Your task to perform on an android device: uninstall "Adobe Acrobat Reader" Image 0: 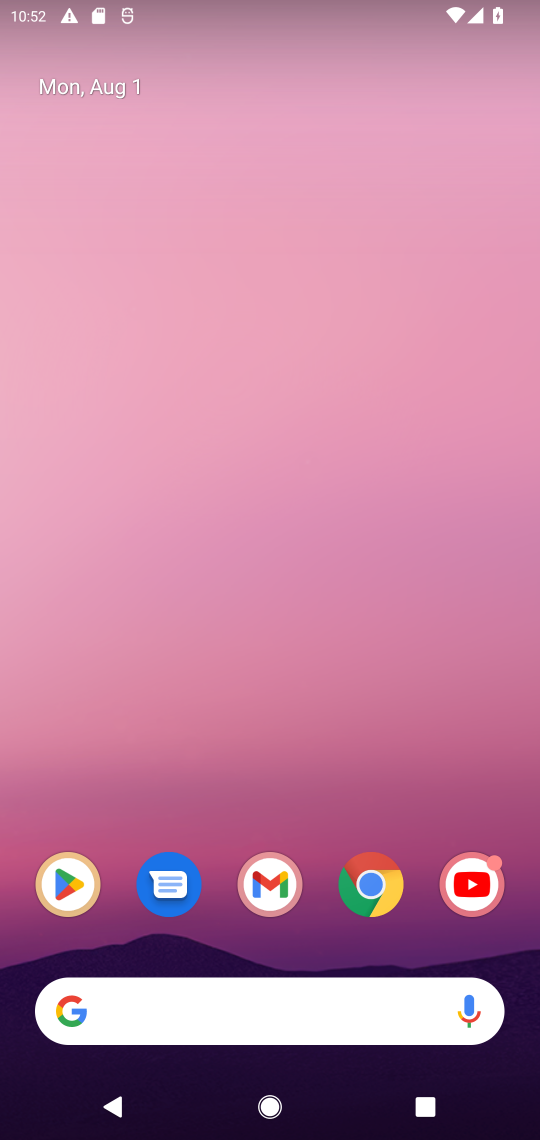
Step 0: press home button
Your task to perform on an android device: uninstall "Adobe Acrobat Reader" Image 1: 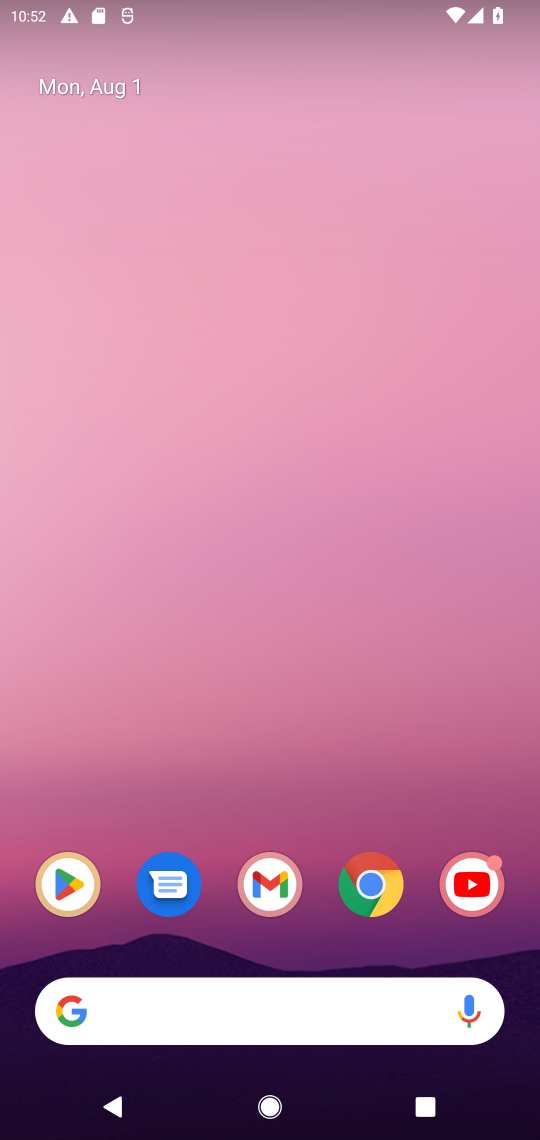
Step 1: click (65, 892)
Your task to perform on an android device: uninstall "Adobe Acrobat Reader" Image 2: 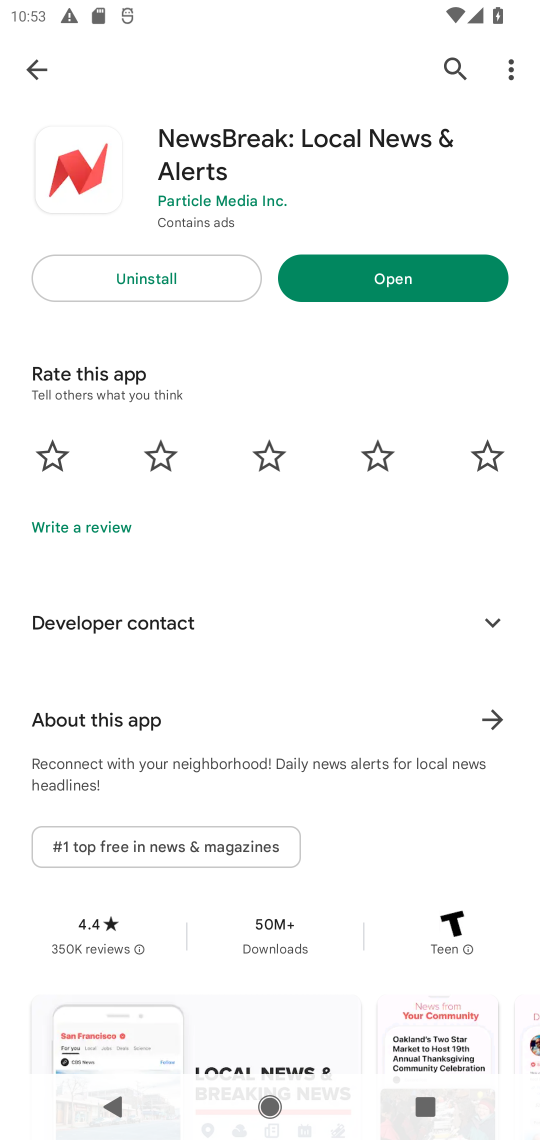
Step 2: click (453, 67)
Your task to perform on an android device: uninstall "Adobe Acrobat Reader" Image 3: 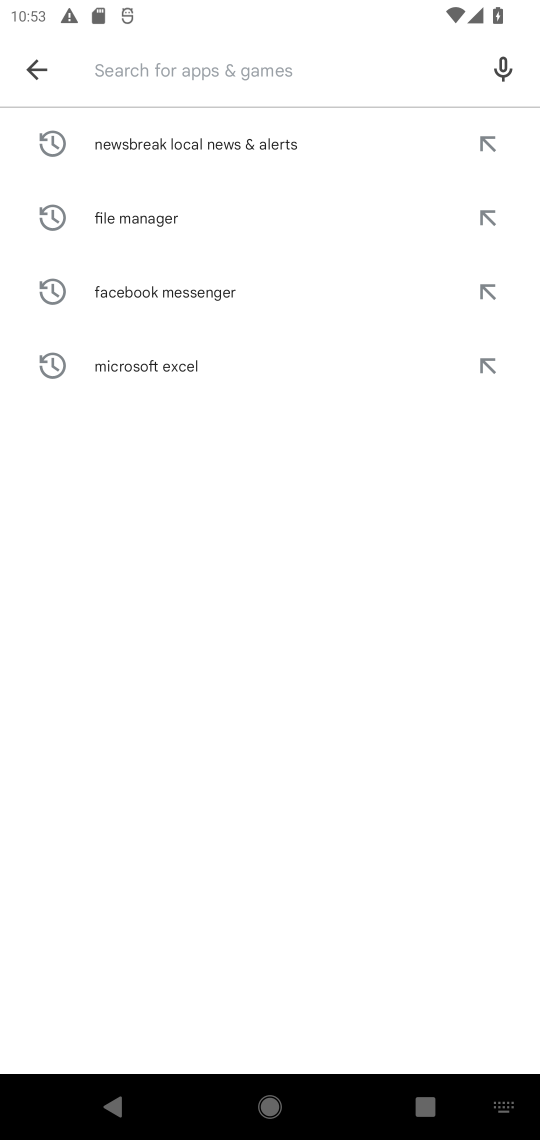
Step 3: type "Adobe Acrobat Reader"
Your task to perform on an android device: uninstall "Adobe Acrobat Reader" Image 4: 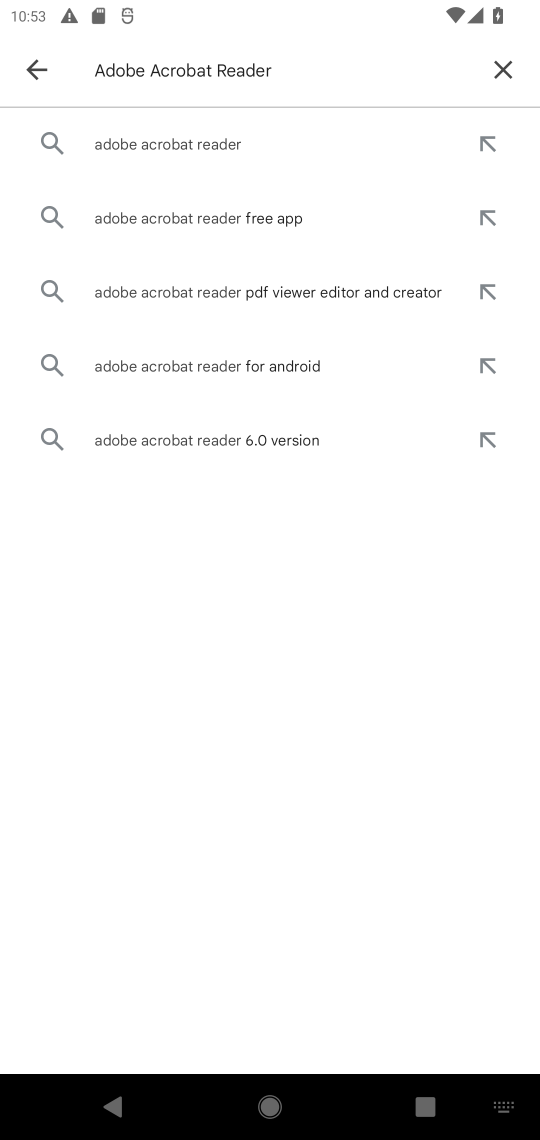
Step 4: click (245, 146)
Your task to perform on an android device: uninstall "Adobe Acrobat Reader" Image 5: 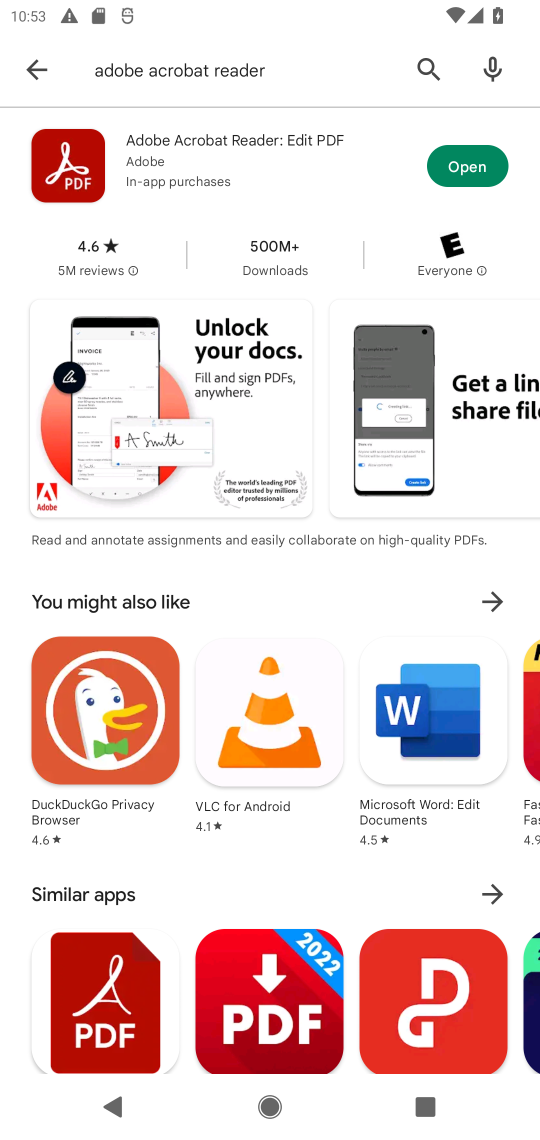
Step 5: click (165, 157)
Your task to perform on an android device: uninstall "Adobe Acrobat Reader" Image 6: 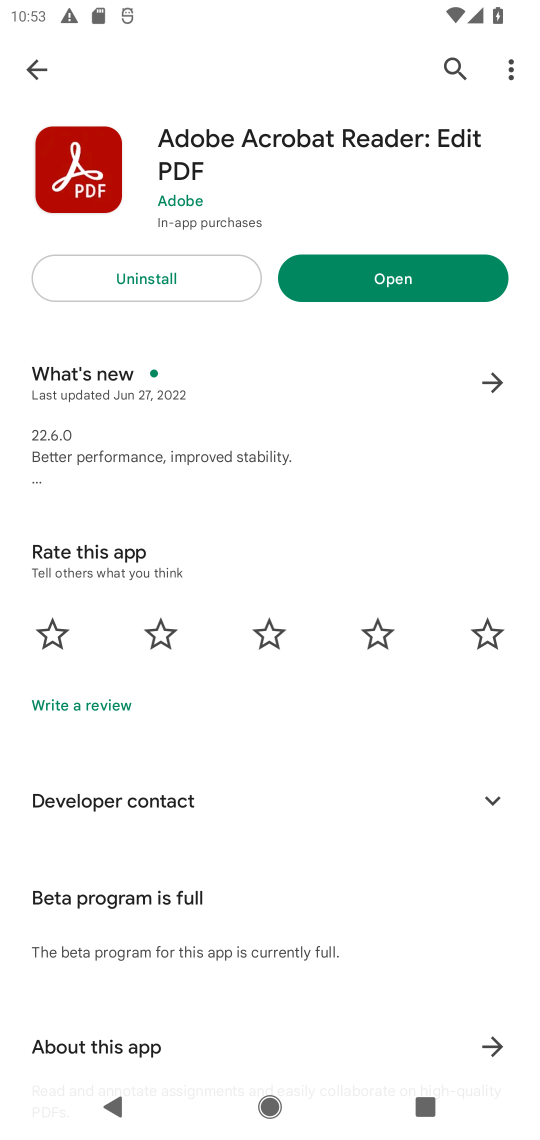
Step 6: click (170, 274)
Your task to perform on an android device: uninstall "Adobe Acrobat Reader" Image 7: 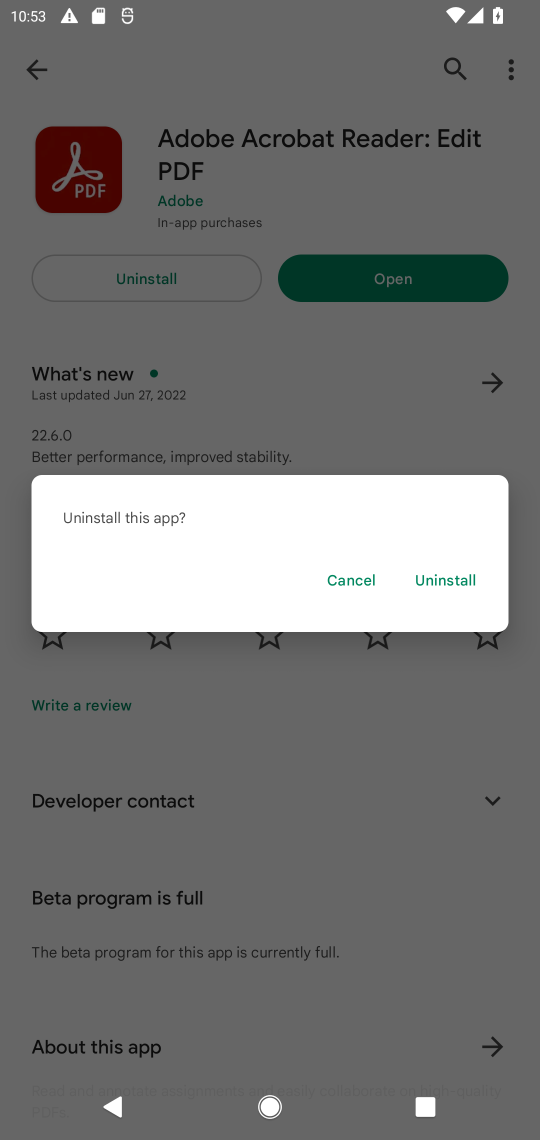
Step 7: click (461, 575)
Your task to perform on an android device: uninstall "Adobe Acrobat Reader" Image 8: 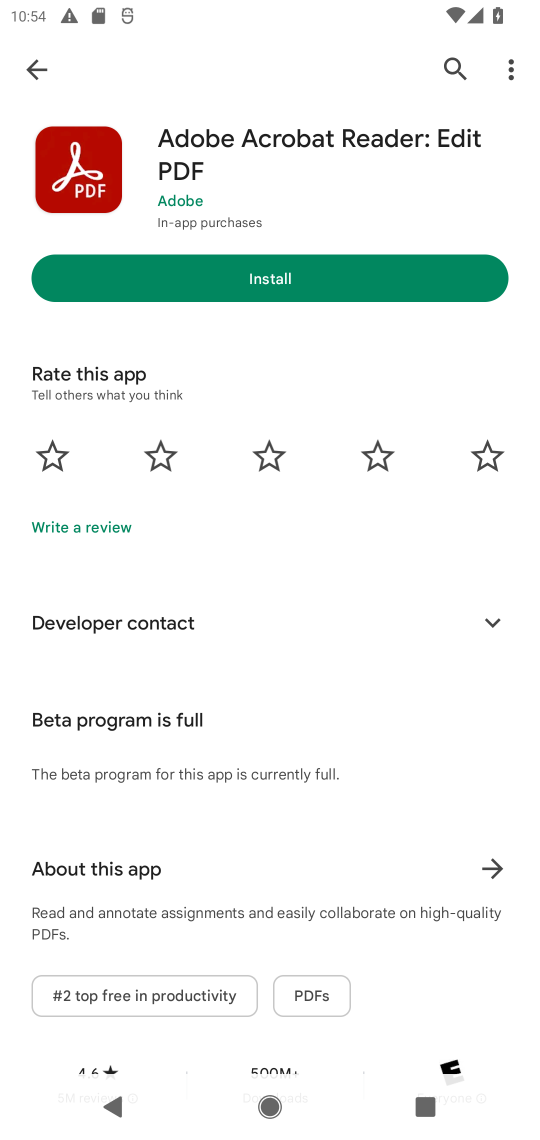
Step 8: task complete